Your task to perform on an android device: Go to battery settings Image 0: 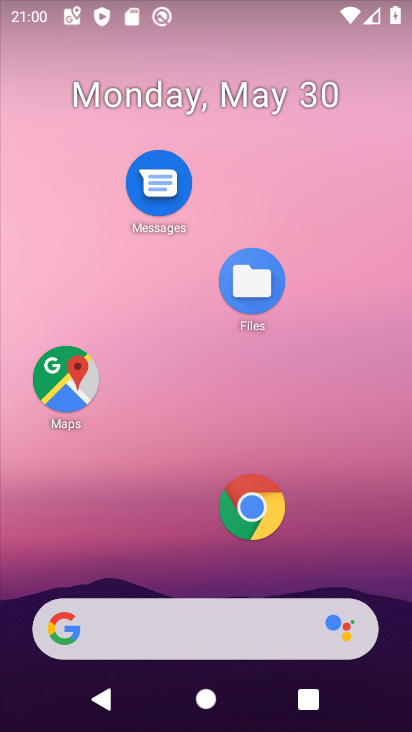
Step 0: drag from (167, 557) to (178, 175)
Your task to perform on an android device: Go to battery settings Image 1: 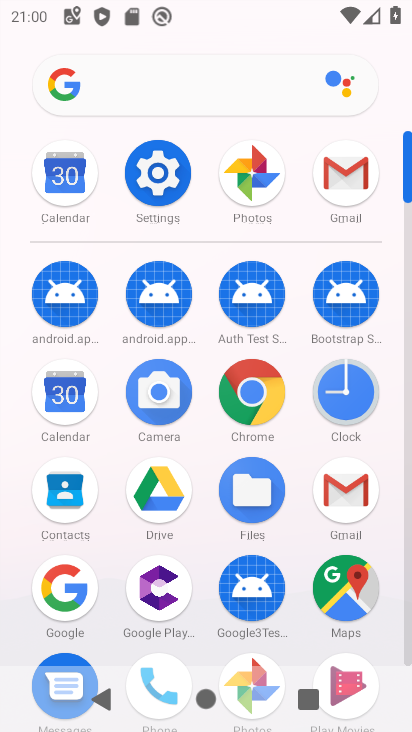
Step 1: click (152, 174)
Your task to perform on an android device: Go to battery settings Image 2: 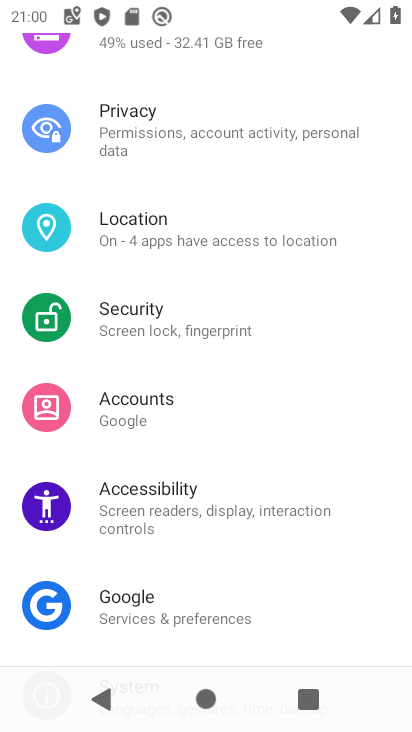
Step 2: drag from (202, 182) to (205, 553)
Your task to perform on an android device: Go to battery settings Image 3: 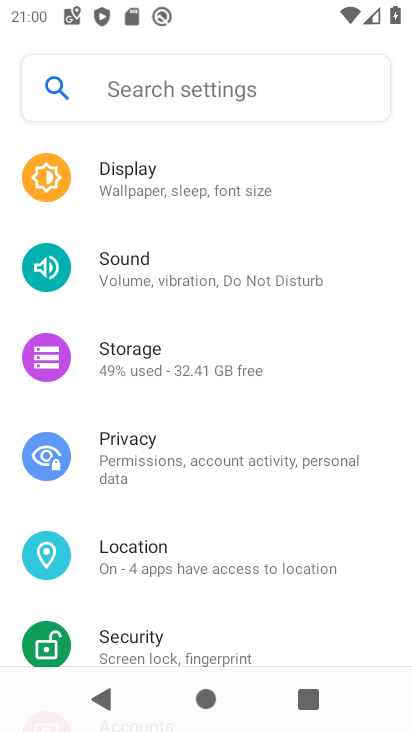
Step 3: drag from (217, 380) to (209, 497)
Your task to perform on an android device: Go to battery settings Image 4: 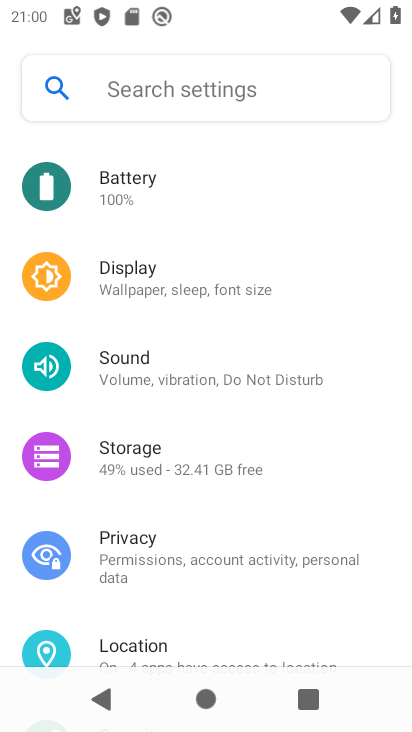
Step 4: click (157, 193)
Your task to perform on an android device: Go to battery settings Image 5: 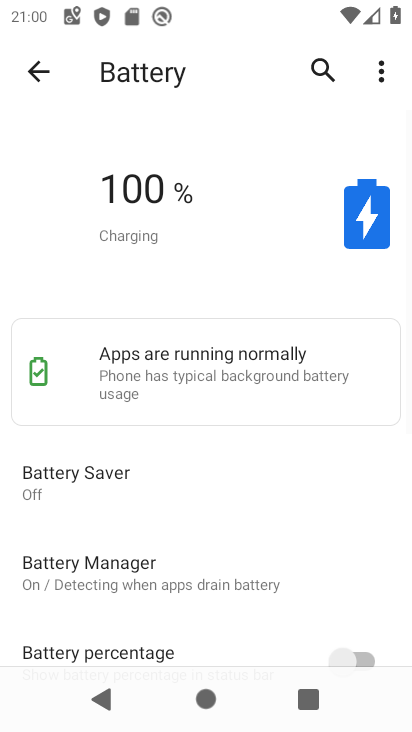
Step 5: task complete